Your task to perform on an android device: Show the shopping cart on newegg. Add "macbook pro" to the cart on newegg, then select checkout. Image 0: 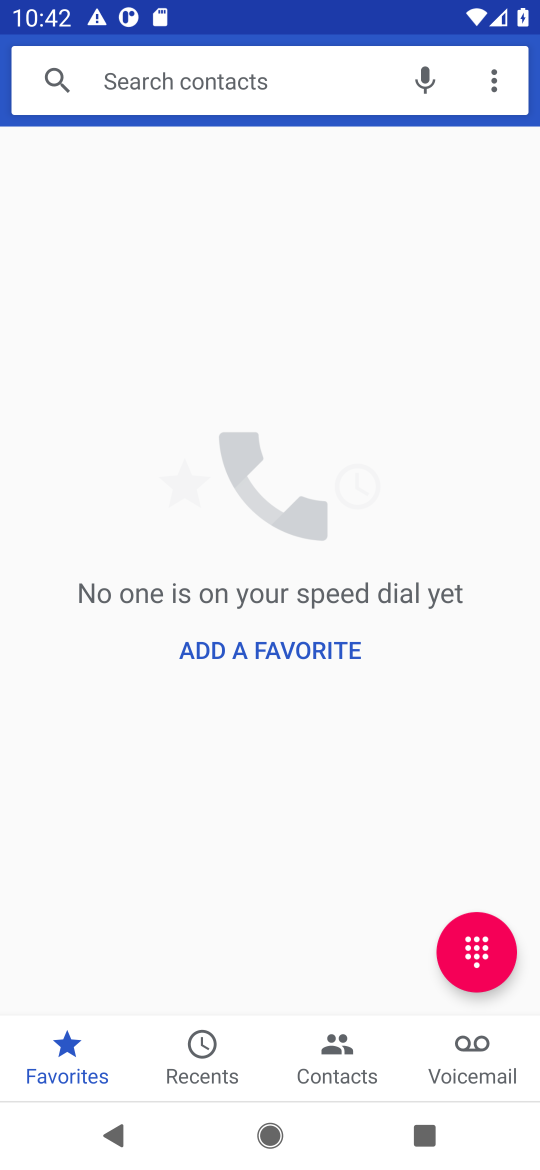
Step 0: press home button
Your task to perform on an android device: Show the shopping cart on newegg. Add "macbook pro" to the cart on newegg, then select checkout. Image 1: 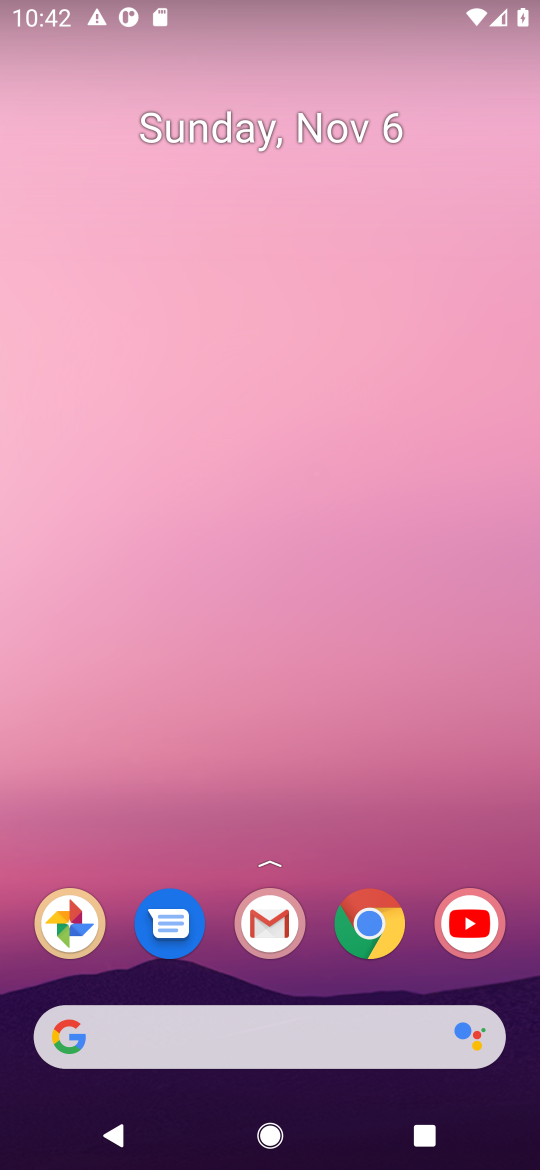
Step 1: click (381, 915)
Your task to perform on an android device: Show the shopping cart on newegg. Add "macbook pro" to the cart on newegg, then select checkout. Image 2: 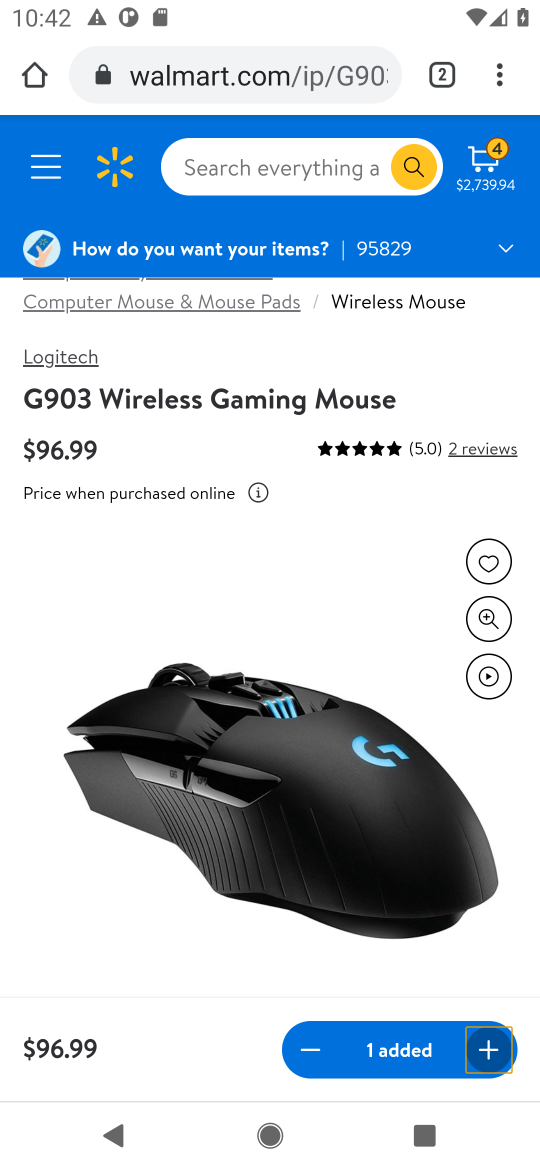
Step 2: click (263, 70)
Your task to perform on an android device: Show the shopping cart on newegg. Add "macbook pro" to the cart on newegg, then select checkout. Image 3: 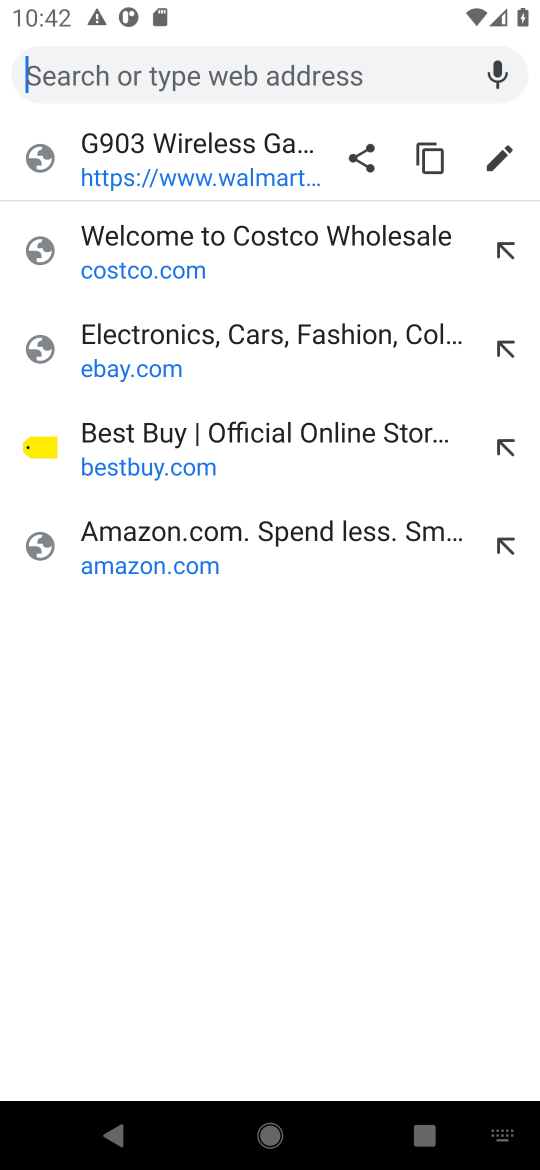
Step 3: type "newegg.com"
Your task to perform on an android device: Show the shopping cart on newegg. Add "macbook pro" to the cart on newegg, then select checkout. Image 4: 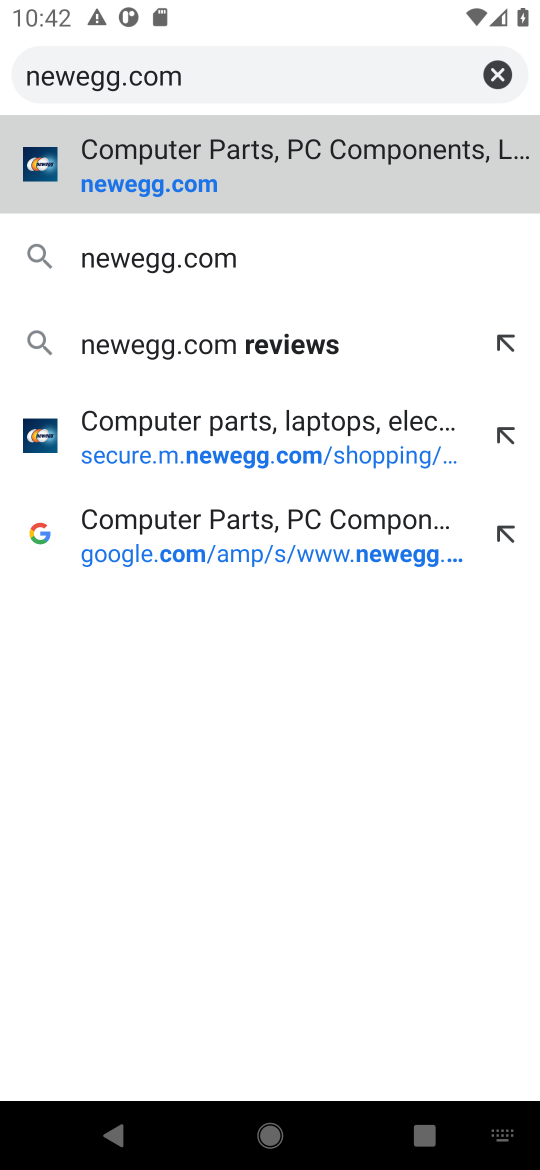
Step 4: click (125, 180)
Your task to perform on an android device: Show the shopping cart on newegg. Add "macbook pro" to the cart on newegg, then select checkout. Image 5: 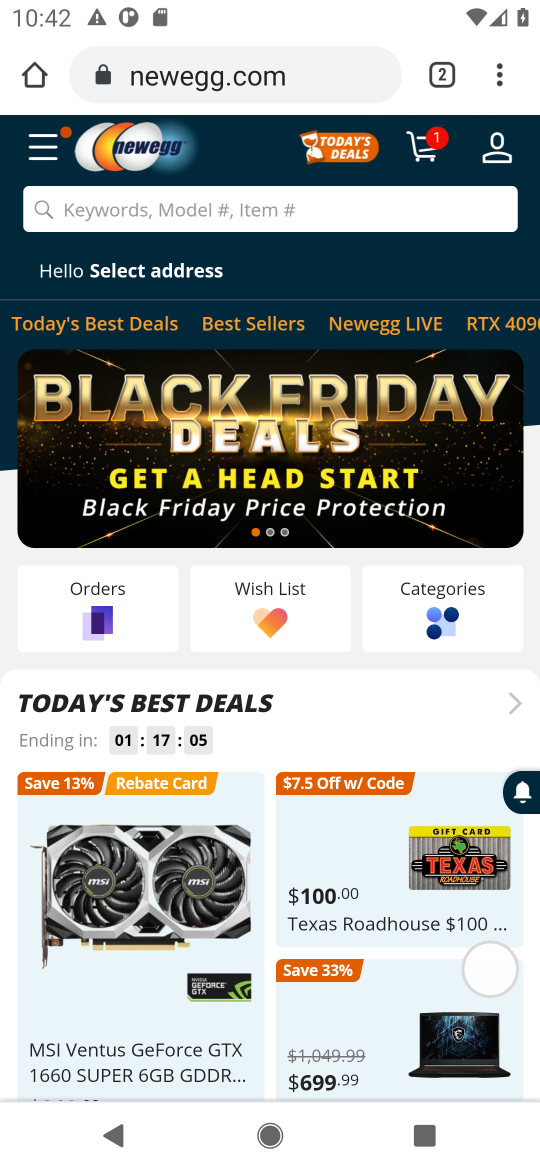
Step 5: click (434, 152)
Your task to perform on an android device: Show the shopping cart on newegg. Add "macbook pro" to the cart on newegg, then select checkout. Image 6: 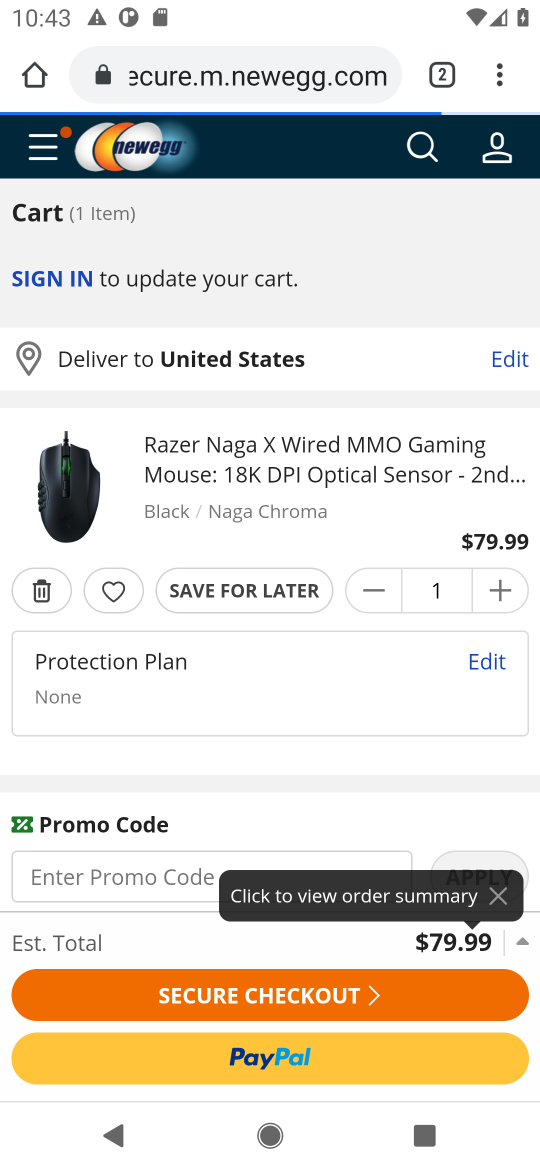
Step 6: click (417, 144)
Your task to perform on an android device: Show the shopping cart on newegg. Add "macbook pro" to the cart on newegg, then select checkout. Image 7: 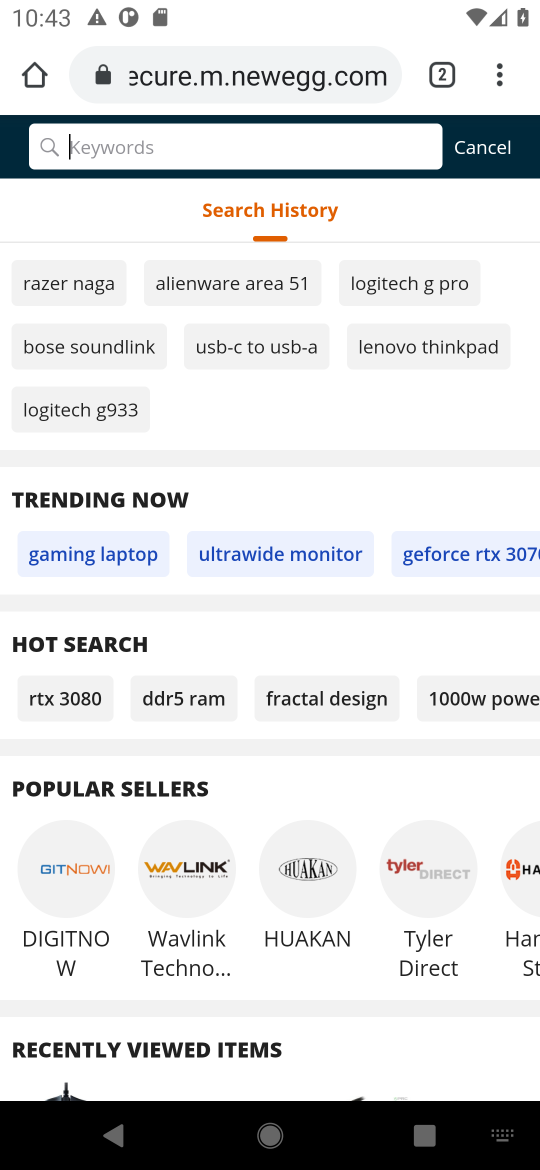
Step 7: type "macbook pro"
Your task to perform on an android device: Show the shopping cart on newegg. Add "macbook pro" to the cart on newegg, then select checkout. Image 8: 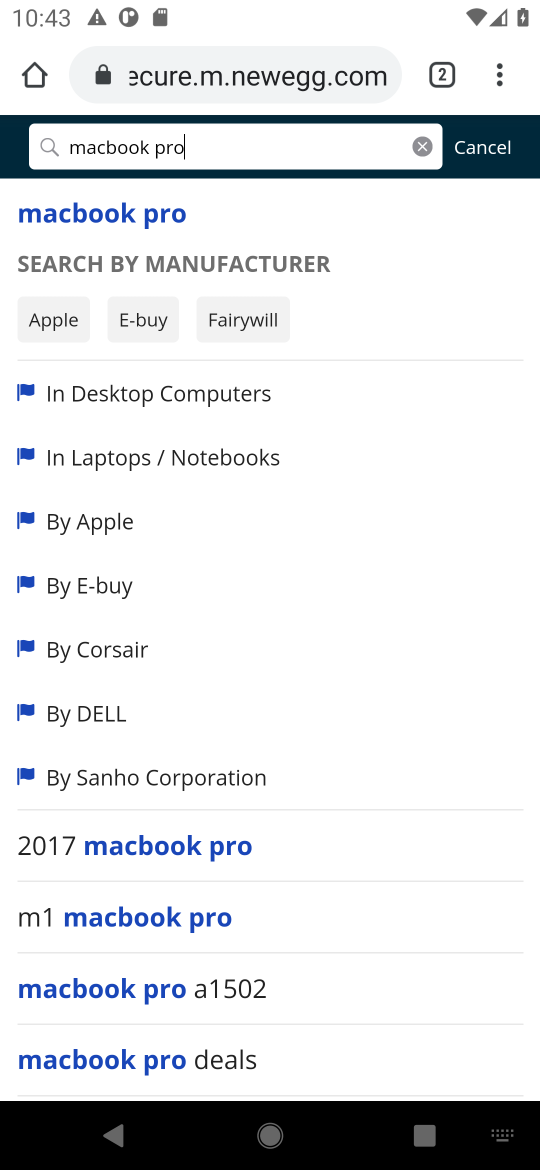
Step 8: click (129, 214)
Your task to perform on an android device: Show the shopping cart on newegg. Add "macbook pro" to the cart on newegg, then select checkout. Image 9: 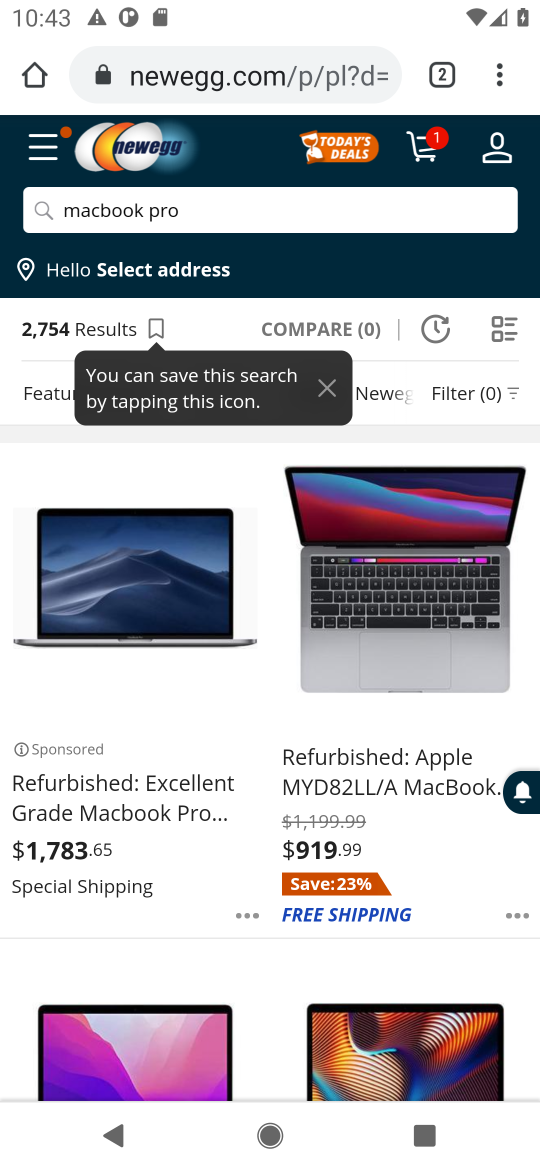
Step 9: click (126, 661)
Your task to perform on an android device: Show the shopping cart on newegg. Add "macbook pro" to the cart on newegg, then select checkout. Image 10: 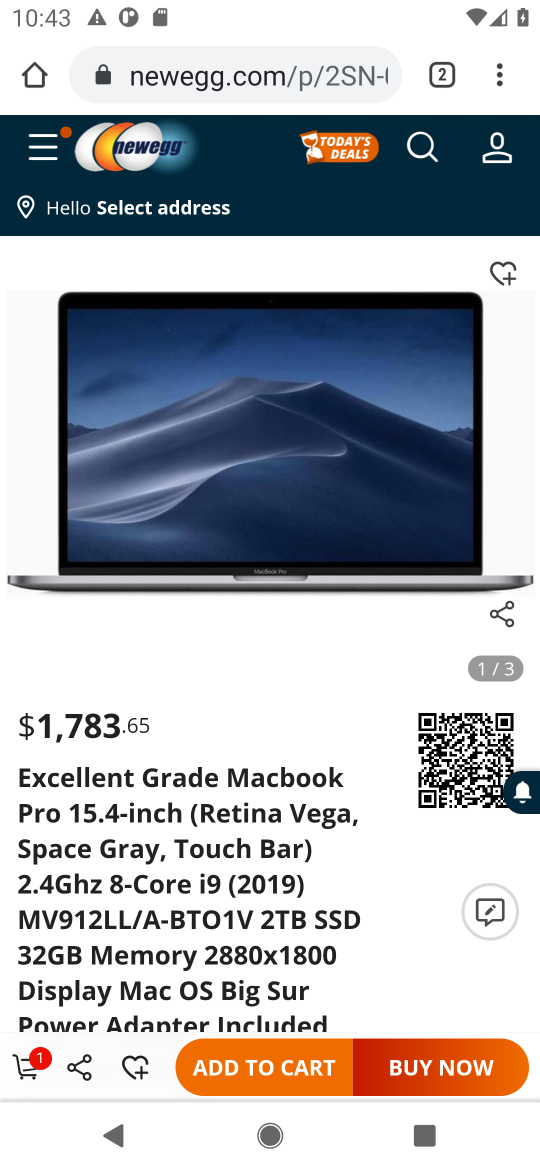
Step 10: click (280, 1059)
Your task to perform on an android device: Show the shopping cart on newegg. Add "macbook pro" to the cart on newegg, then select checkout. Image 11: 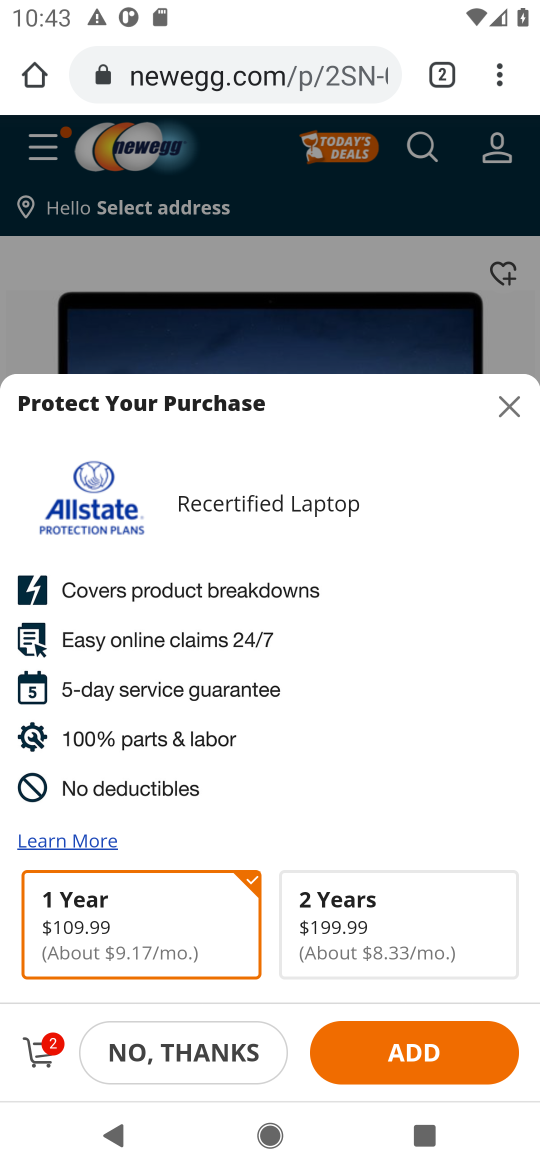
Step 11: click (38, 1049)
Your task to perform on an android device: Show the shopping cart on newegg. Add "macbook pro" to the cart on newegg, then select checkout. Image 12: 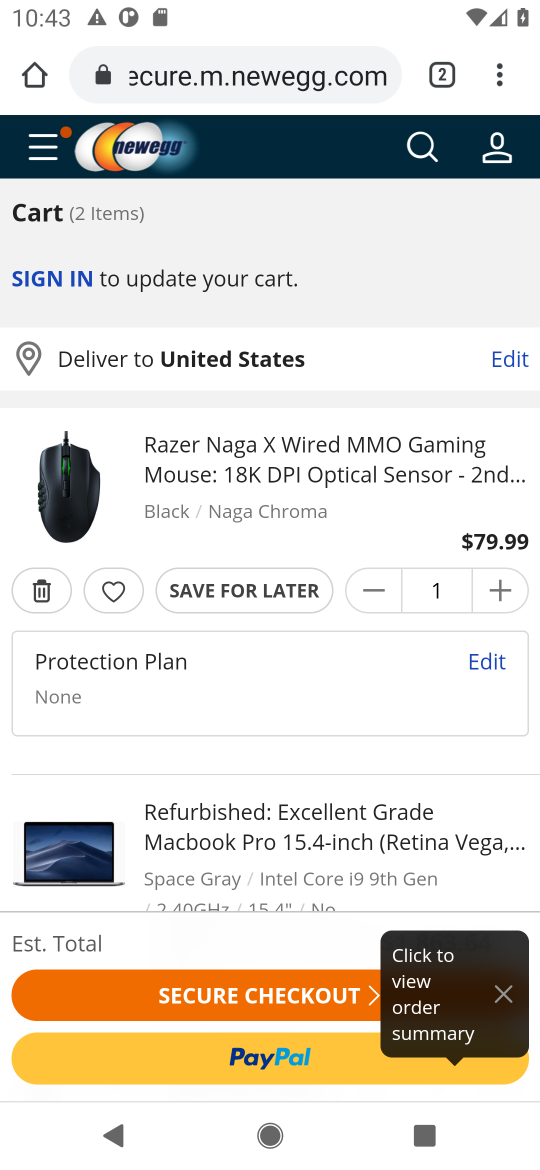
Step 12: click (304, 1064)
Your task to perform on an android device: Show the shopping cart on newegg. Add "macbook pro" to the cart on newegg, then select checkout. Image 13: 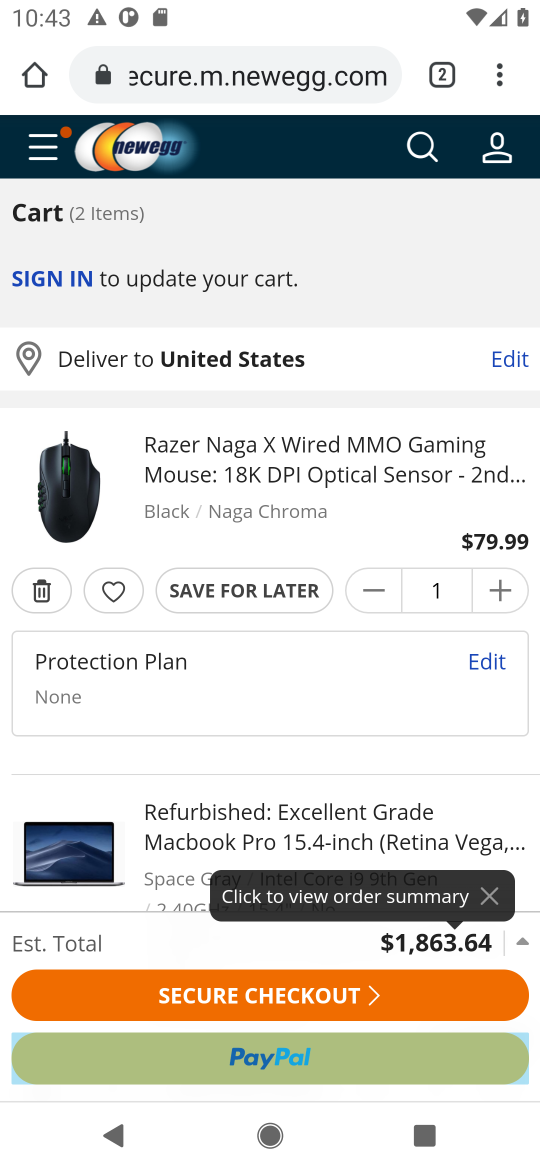
Step 13: click (304, 998)
Your task to perform on an android device: Show the shopping cart on newegg. Add "macbook pro" to the cart on newegg, then select checkout. Image 14: 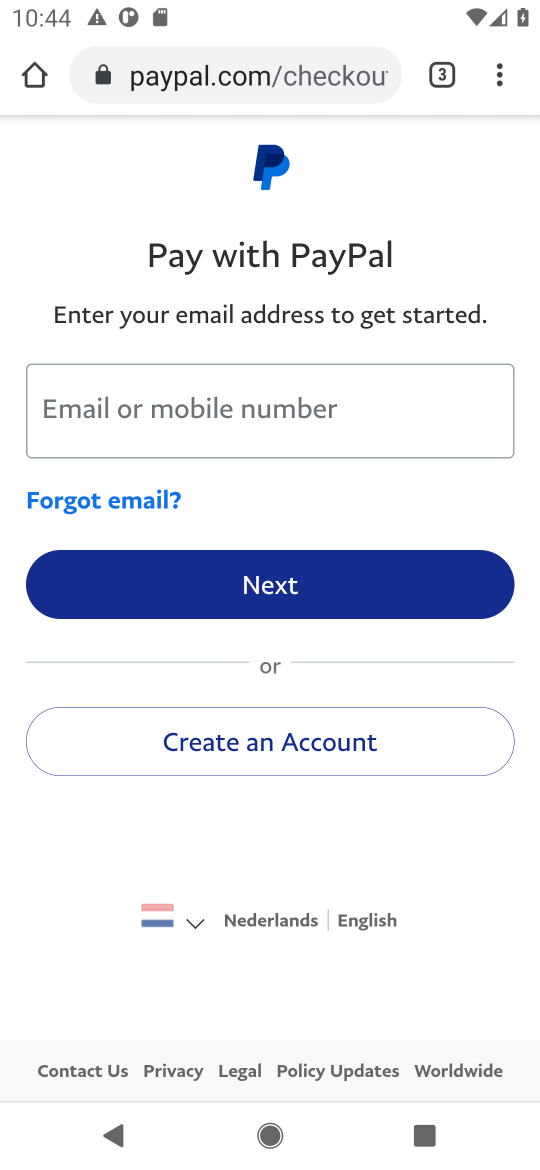
Step 14: press back button
Your task to perform on an android device: Show the shopping cart on newegg. Add "macbook pro" to the cart on newegg, then select checkout. Image 15: 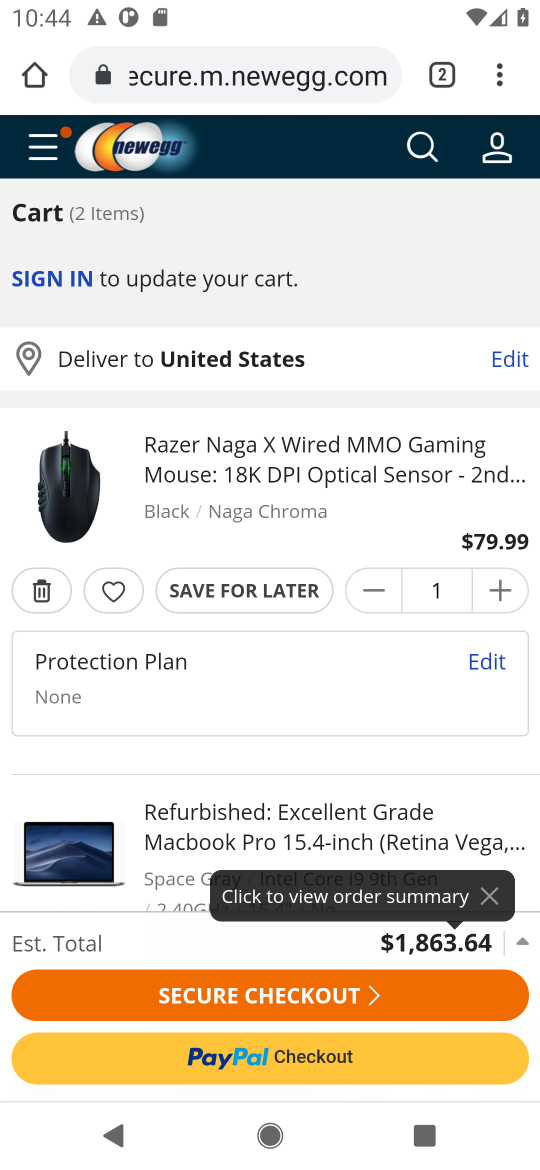
Step 15: click (300, 989)
Your task to perform on an android device: Show the shopping cart on newegg. Add "macbook pro" to the cart on newegg, then select checkout. Image 16: 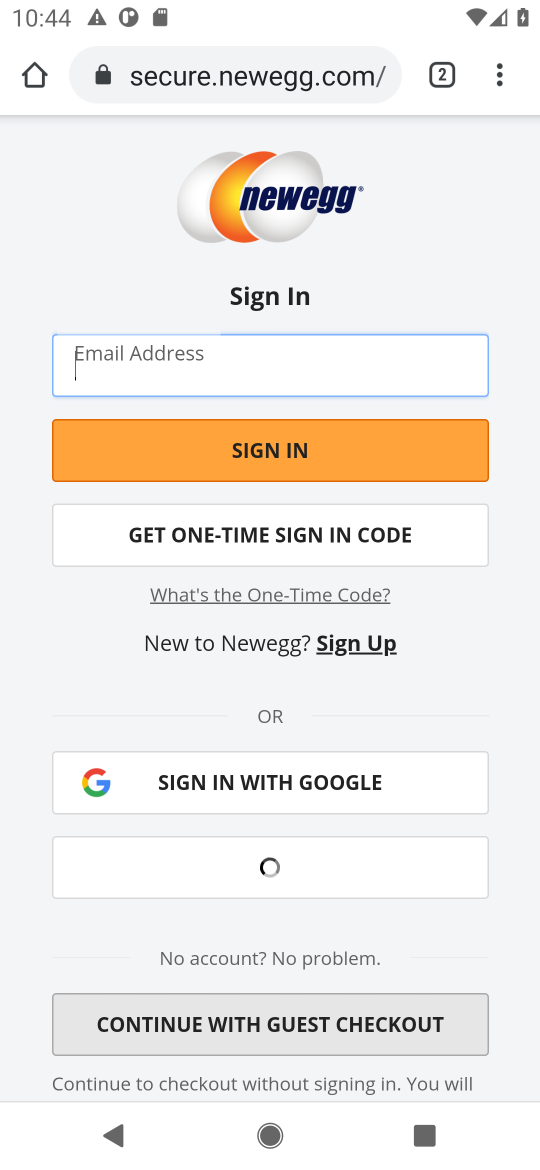
Step 16: task complete